Your task to perform on an android device: Open Yahoo.com Image 0: 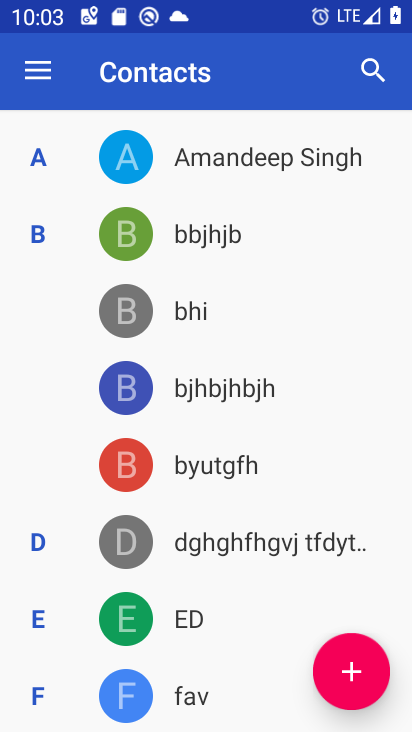
Step 0: press home button
Your task to perform on an android device: Open Yahoo.com Image 1: 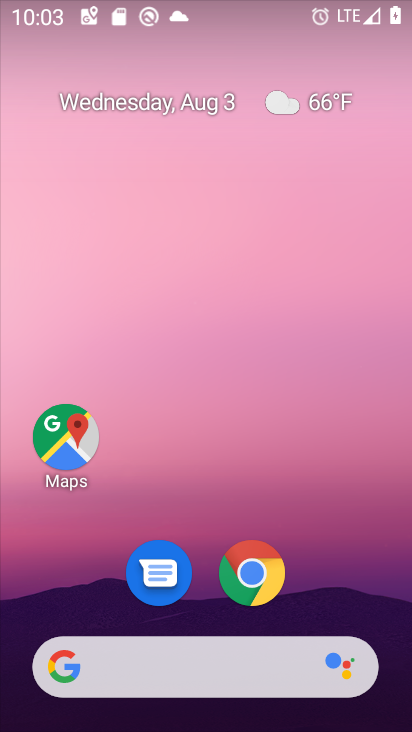
Step 1: click (259, 572)
Your task to perform on an android device: Open Yahoo.com Image 2: 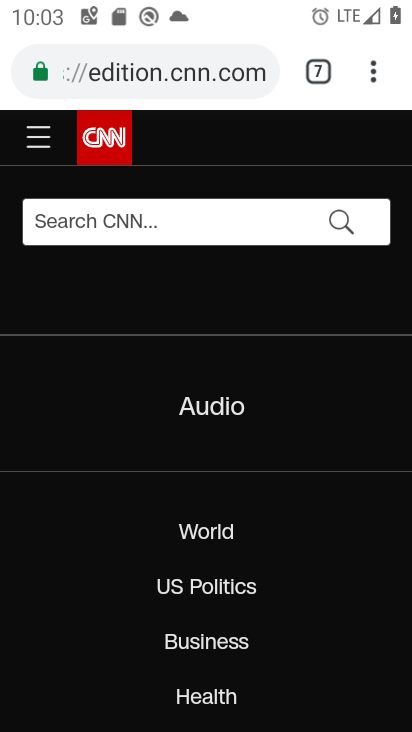
Step 2: click (168, 75)
Your task to perform on an android device: Open Yahoo.com Image 3: 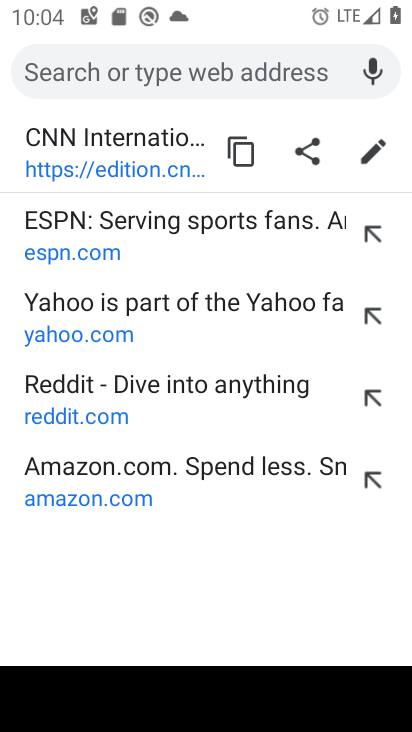
Step 3: click (65, 326)
Your task to perform on an android device: Open Yahoo.com Image 4: 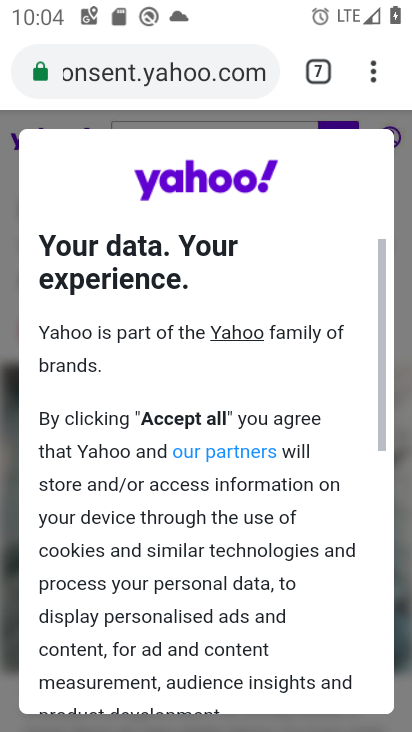
Step 4: task complete